Your task to perform on an android device: change notifications settings Image 0: 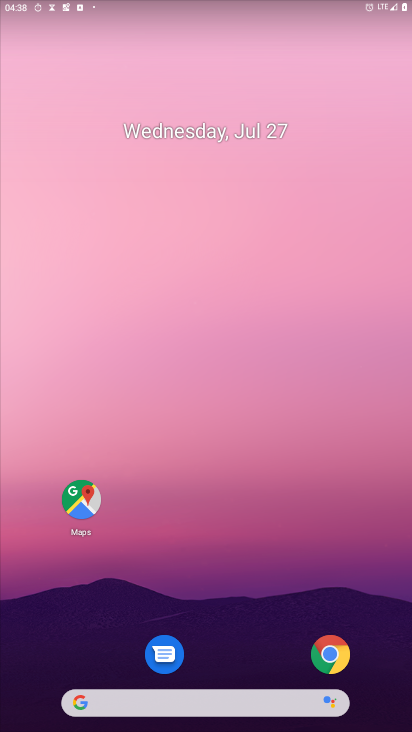
Step 0: drag from (265, 701) to (313, 64)
Your task to perform on an android device: change notifications settings Image 1: 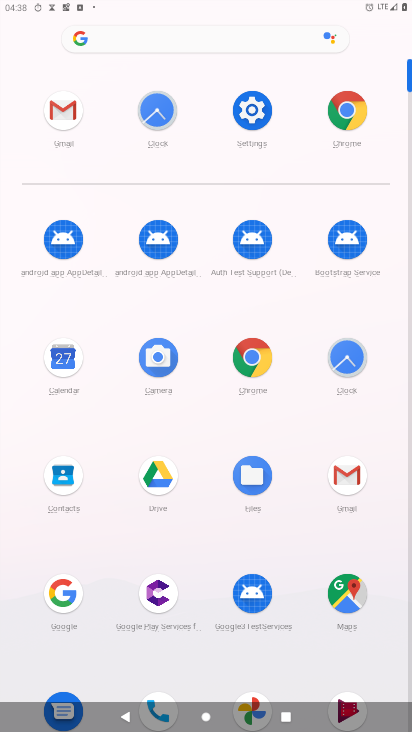
Step 1: click (240, 94)
Your task to perform on an android device: change notifications settings Image 2: 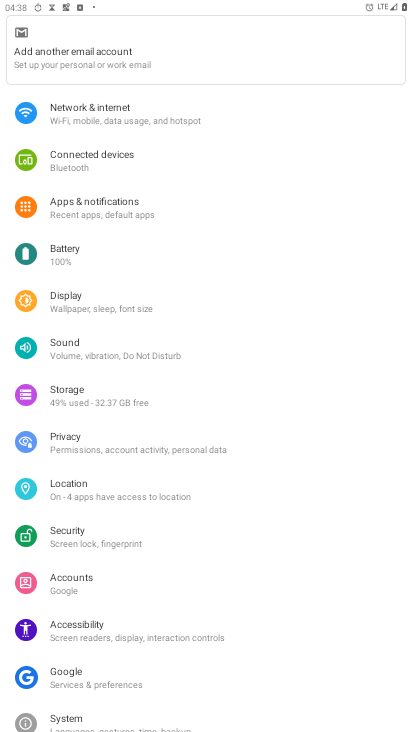
Step 2: click (115, 198)
Your task to perform on an android device: change notifications settings Image 3: 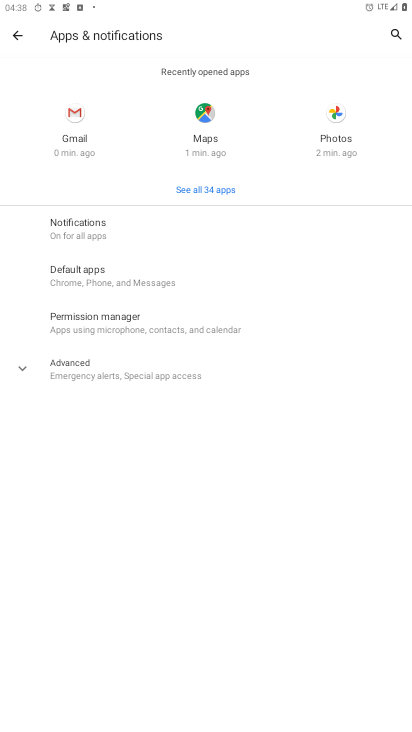
Step 3: click (131, 241)
Your task to perform on an android device: change notifications settings Image 4: 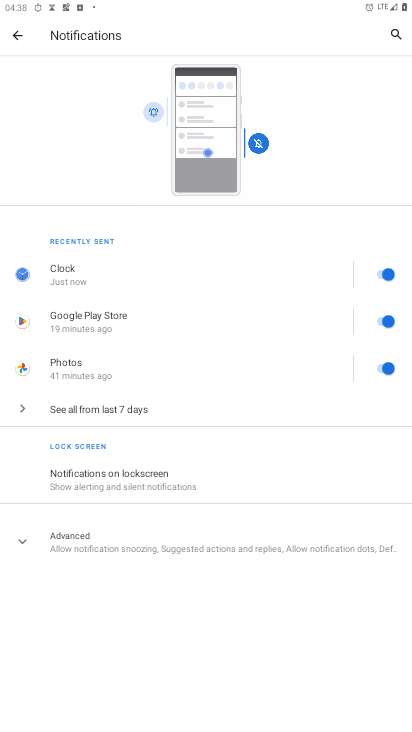
Step 4: task complete